Your task to perform on an android device: clear all cookies in the chrome app Image 0: 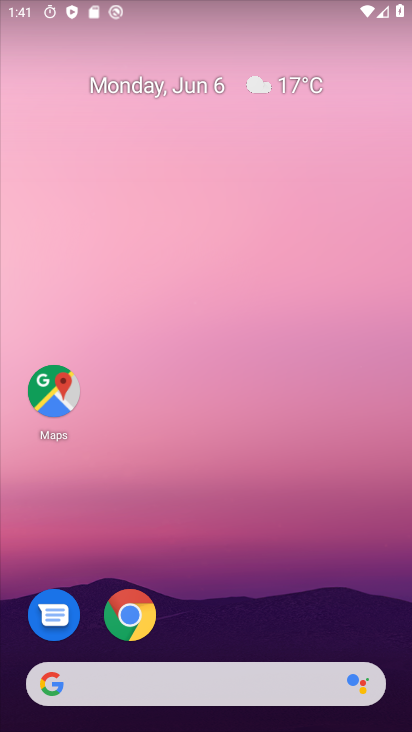
Step 0: drag from (219, 580) to (232, 57)
Your task to perform on an android device: clear all cookies in the chrome app Image 1: 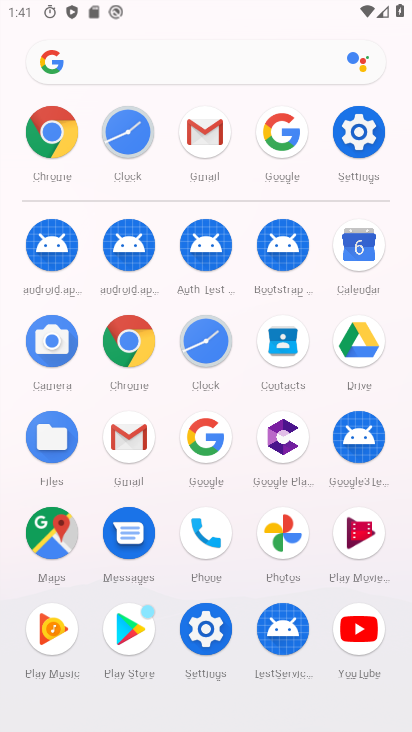
Step 1: click (127, 342)
Your task to perform on an android device: clear all cookies in the chrome app Image 2: 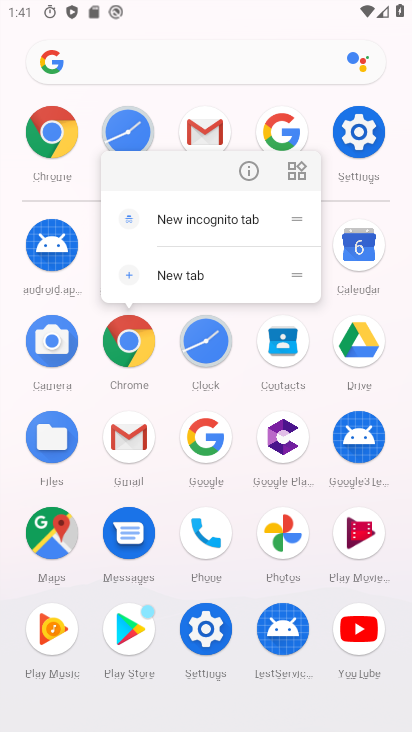
Step 2: click (246, 158)
Your task to perform on an android device: clear all cookies in the chrome app Image 3: 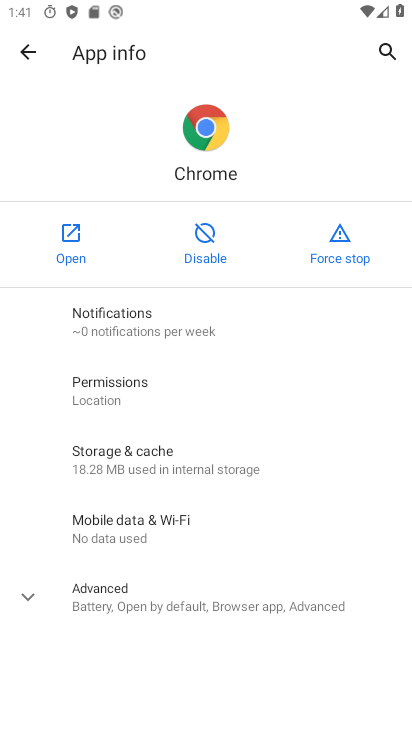
Step 3: click (66, 236)
Your task to perform on an android device: clear all cookies in the chrome app Image 4: 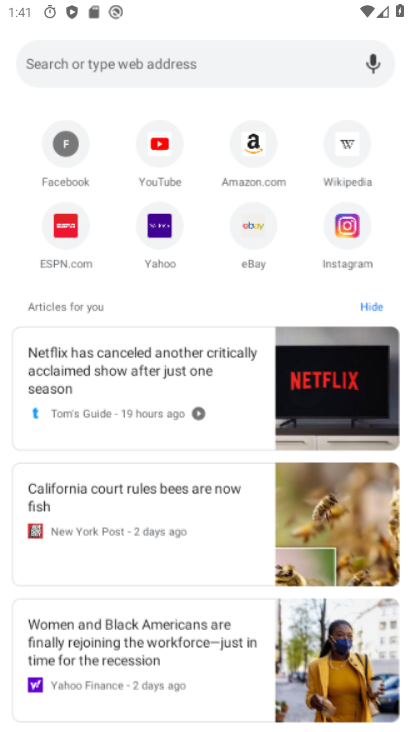
Step 4: drag from (194, 271) to (200, 162)
Your task to perform on an android device: clear all cookies in the chrome app Image 5: 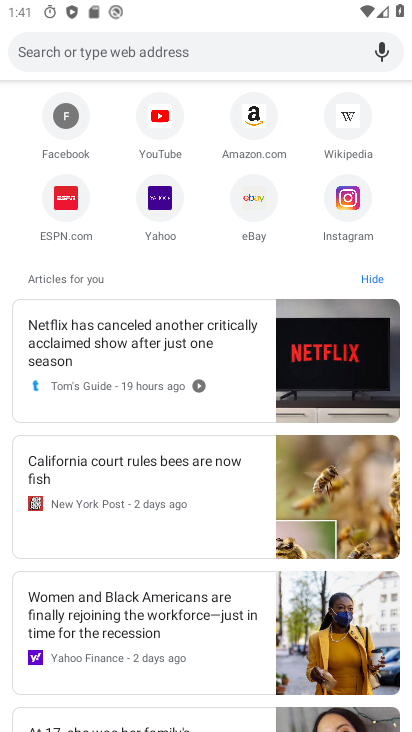
Step 5: drag from (197, 79) to (240, 692)
Your task to perform on an android device: clear all cookies in the chrome app Image 6: 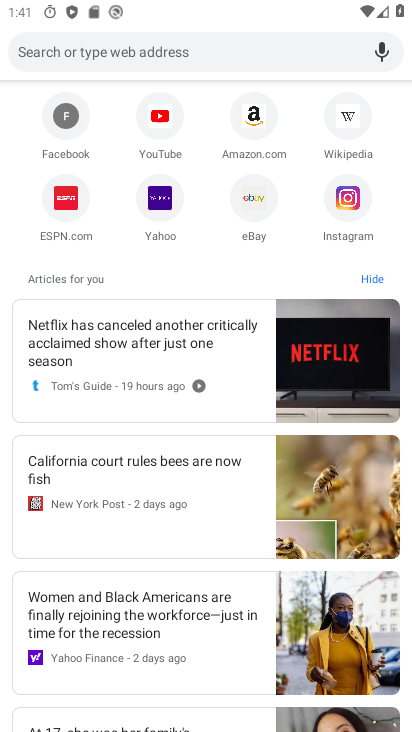
Step 6: drag from (208, 199) to (217, 615)
Your task to perform on an android device: clear all cookies in the chrome app Image 7: 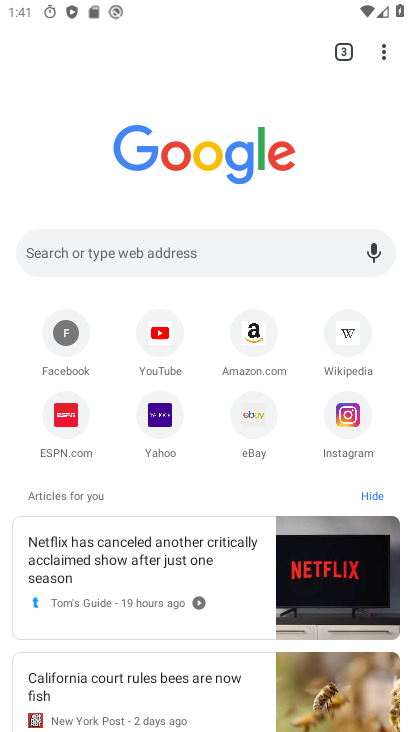
Step 7: click (379, 61)
Your task to perform on an android device: clear all cookies in the chrome app Image 8: 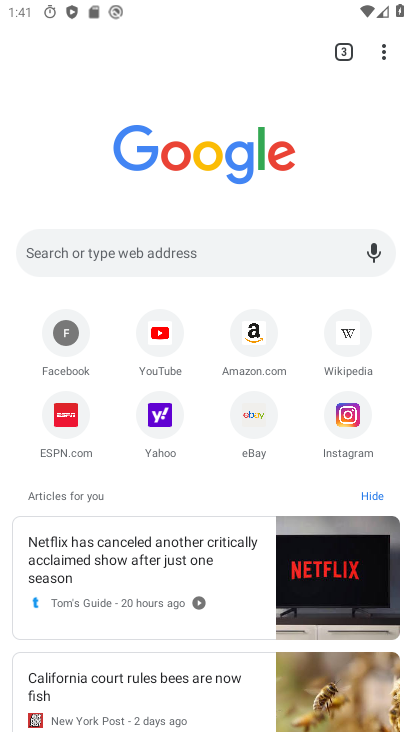
Step 8: drag from (380, 62) to (239, 305)
Your task to perform on an android device: clear all cookies in the chrome app Image 9: 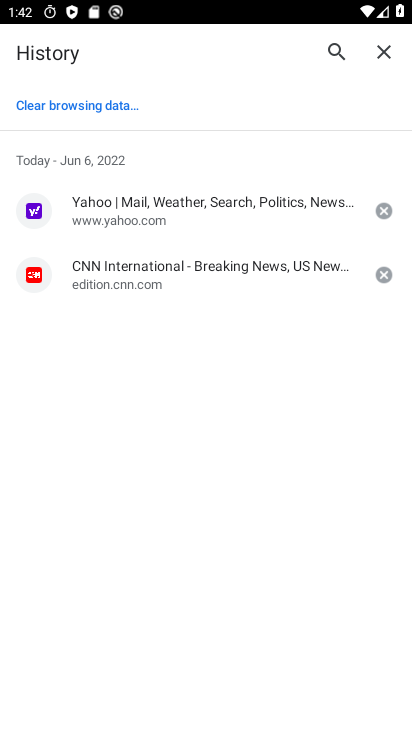
Step 9: drag from (191, 621) to (190, 307)
Your task to perform on an android device: clear all cookies in the chrome app Image 10: 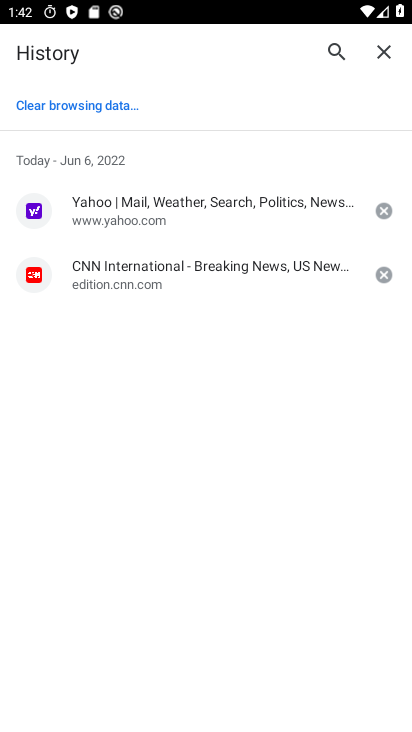
Step 10: click (69, 105)
Your task to perform on an android device: clear all cookies in the chrome app Image 11: 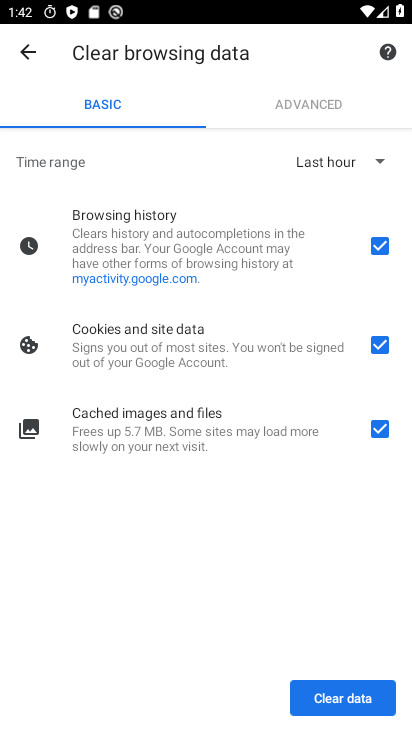
Step 11: drag from (228, 351) to (231, 218)
Your task to perform on an android device: clear all cookies in the chrome app Image 12: 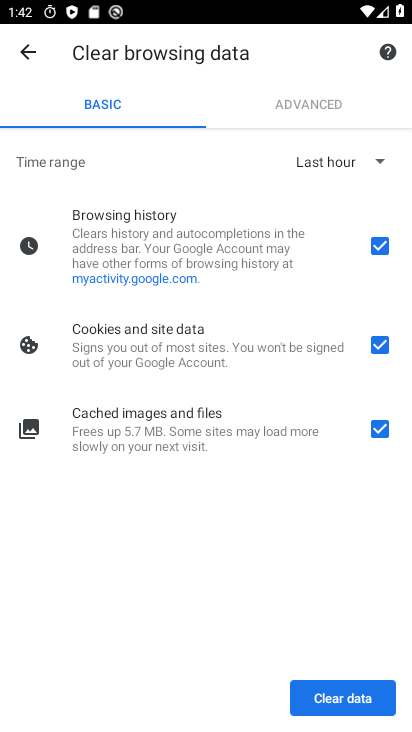
Step 12: click (369, 711)
Your task to perform on an android device: clear all cookies in the chrome app Image 13: 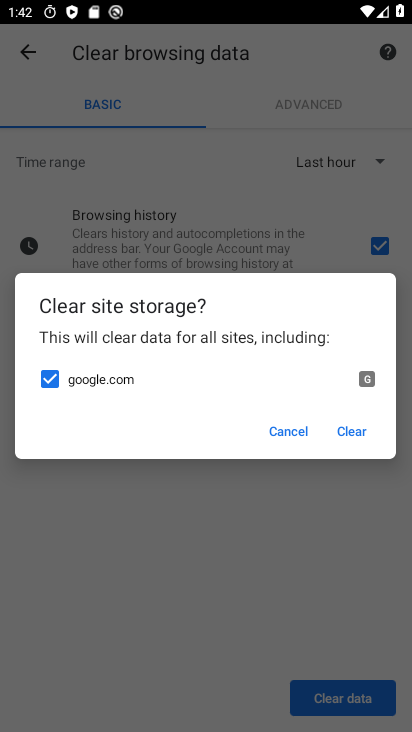
Step 13: click (338, 419)
Your task to perform on an android device: clear all cookies in the chrome app Image 14: 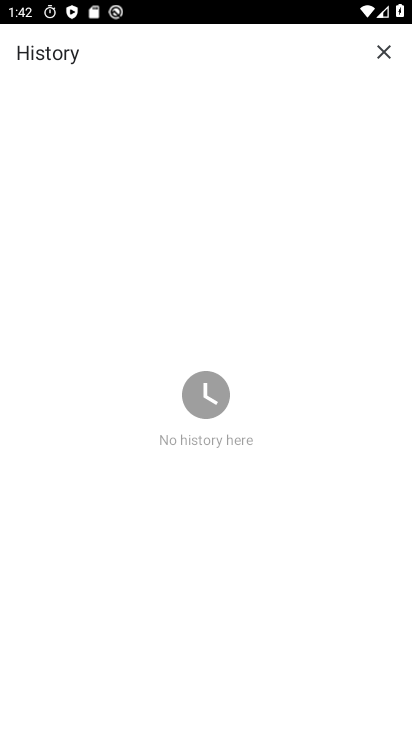
Step 14: task complete